Your task to perform on an android device: Open internet settings Image 0: 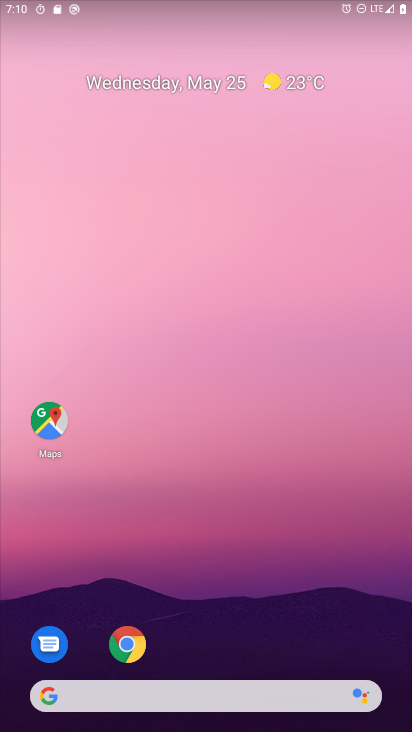
Step 0: drag from (337, 617) to (287, 7)
Your task to perform on an android device: Open internet settings Image 1: 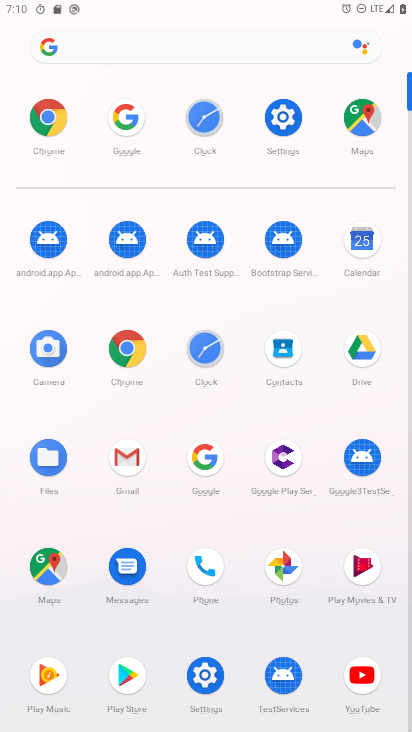
Step 1: click (285, 103)
Your task to perform on an android device: Open internet settings Image 2: 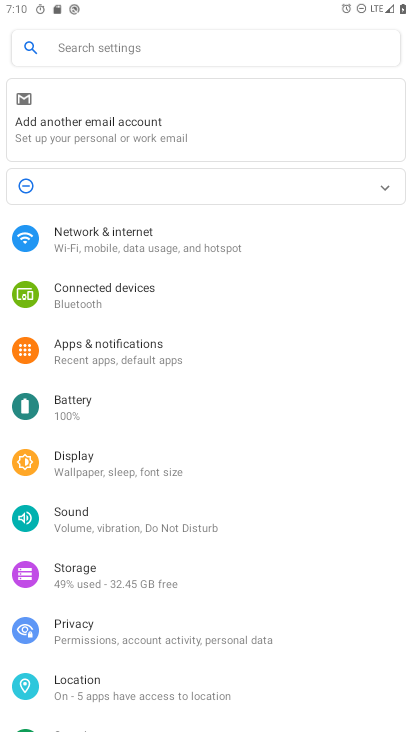
Step 2: click (162, 245)
Your task to perform on an android device: Open internet settings Image 3: 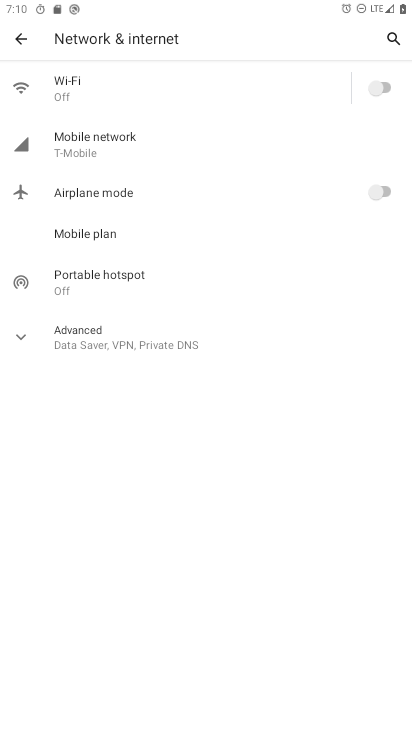
Step 3: task complete